Your task to perform on an android device: turn off sleep mode Image 0: 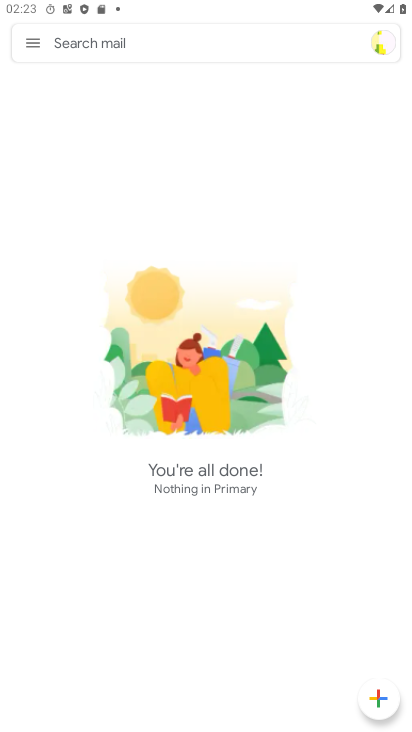
Step 0: press home button
Your task to perform on an android device: turn off sleep mode Image 1: 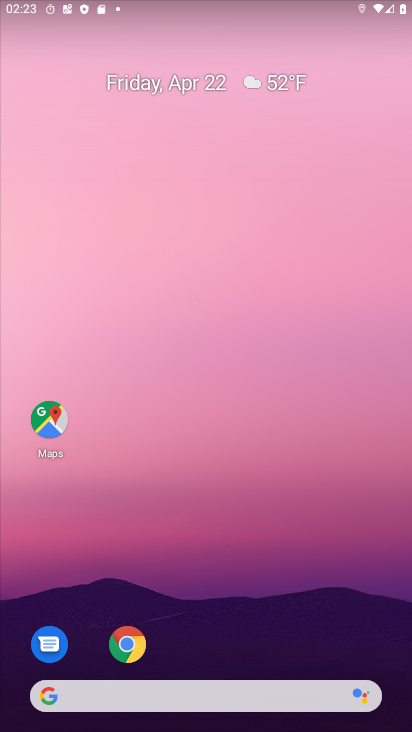
Step 1: task complete